Your task to perform on an android device: see creations saved in the google photos Image 0: 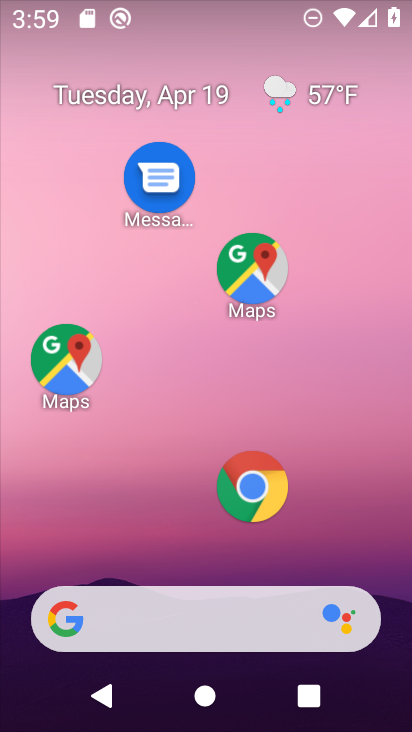
Step 0: drag from (296, 554) to (347, 180)
Your task to perform on an android device: see creations saved in the google photos Image 1: 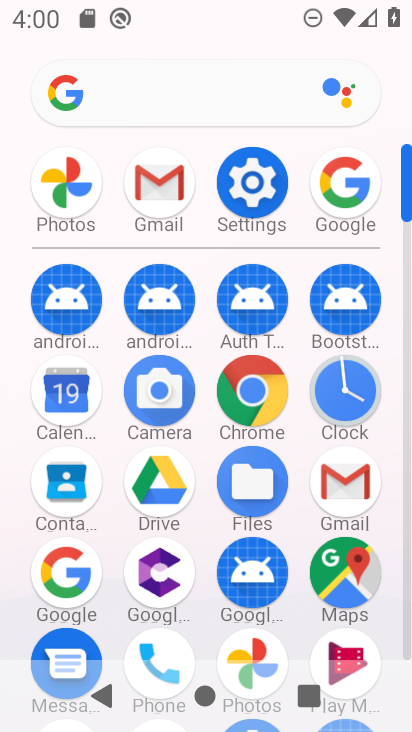
Step 1: drag from (213, 527) to (214, 369)
Your task to perform on an android device: see creations saved in the google photos Image 2: 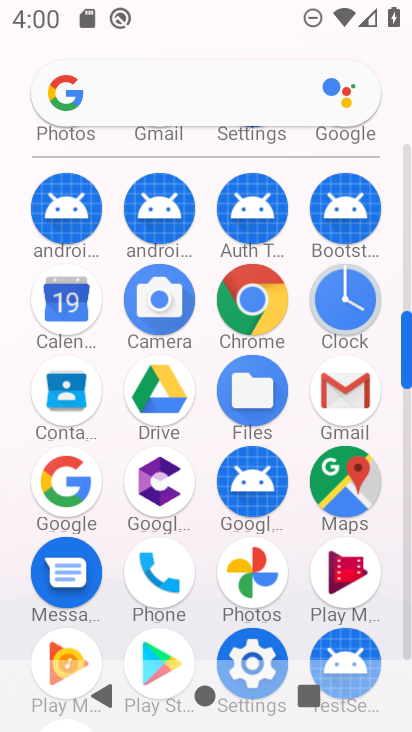
Step 2: click (258, 575)
Your task to perform on an android device: see creations saved in the google photos Image 3: 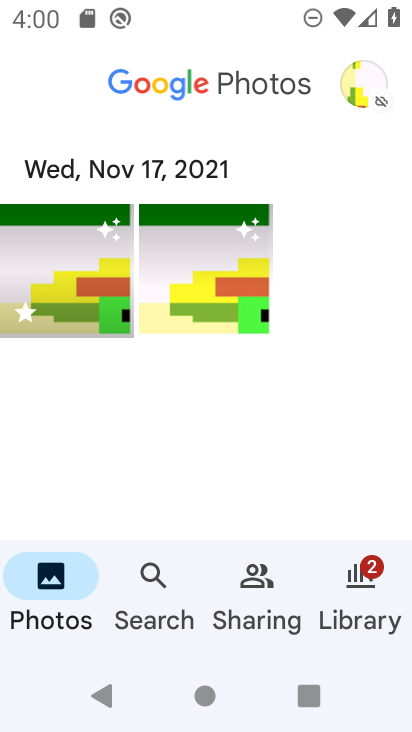
Step 3: click (143, 585)
Your task to perform on an android device: see creations saved in the google photos Image 4: 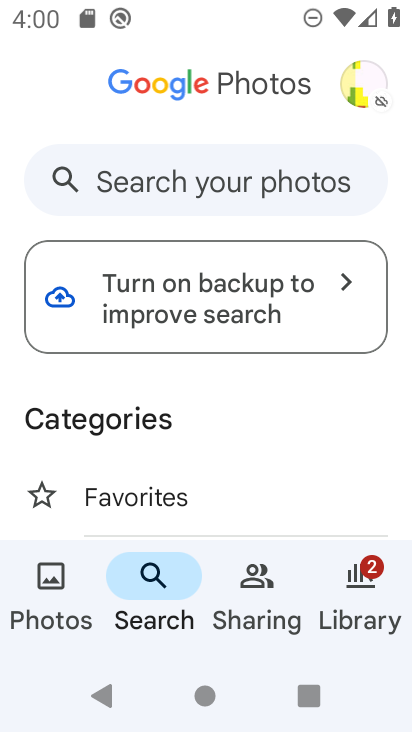
Step 4: drag from (218, 437) to (250, 196)
Your task to perform on an android device: see creations saved in the google photos Image 5: 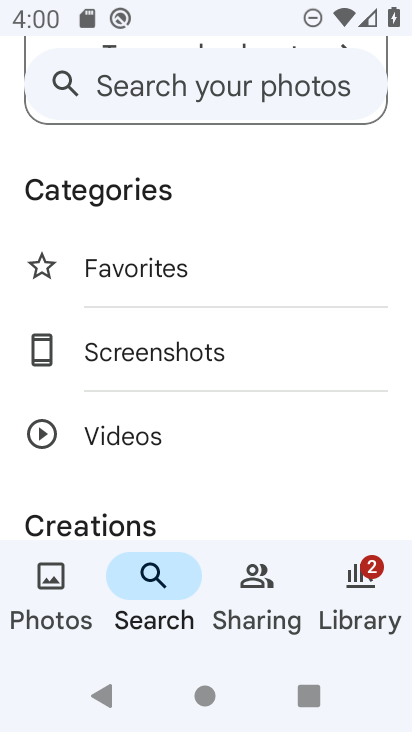
Step 5: drag from (252, 428) to (305, 142)
Your task to perform on an android device: see creations saved in the google photos Image 6: 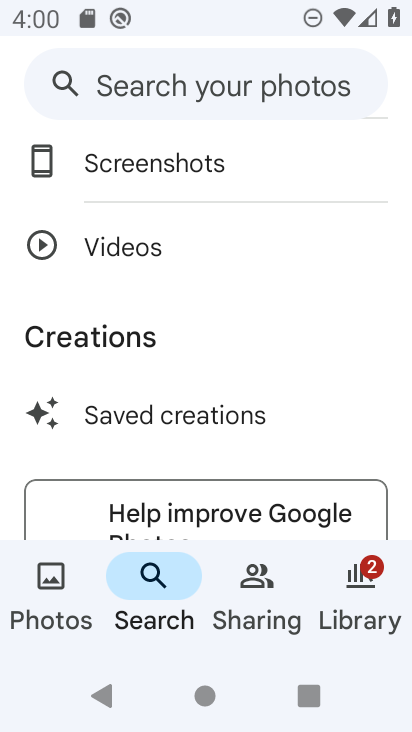
Step 6: click (193, 411)
Your task to perform on an android device: see creations saved in the google photos Image 7: 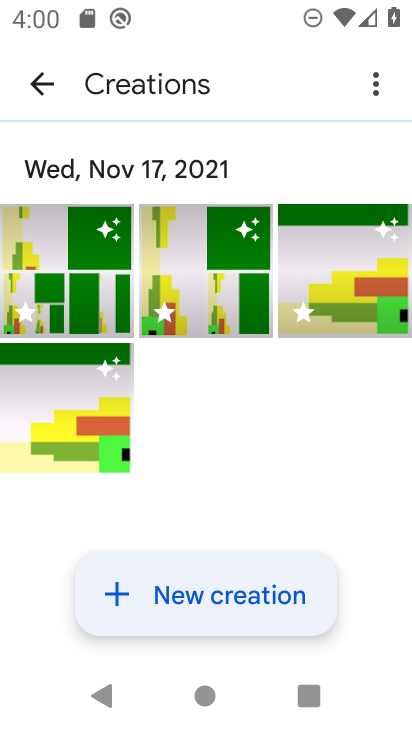
Step 7: task complete